Your task to perform on an android device: Open Youtube and go to "Your channel" Image 0: 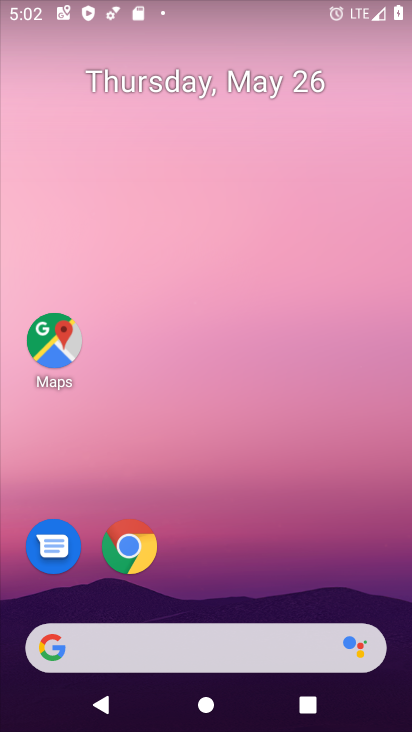
Step 0: drag from (211, 509) to (255, 111)
Your task to perform on an android device: Open Youtube and go to "Your channel" Image 1: 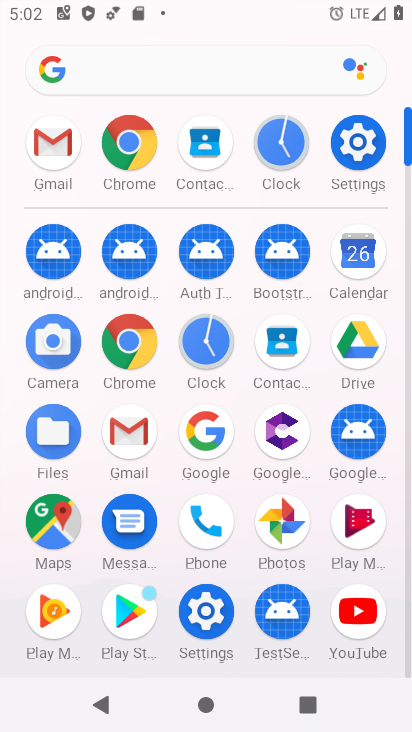
Step 1: click (350, 610)
Your task to perform on an android device: Open Youtube and go to "Your channel" Image 2: 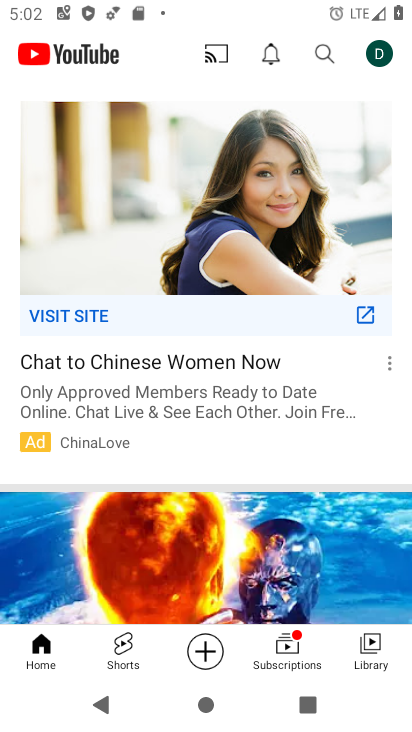
Step 2: drag from (380, 57) to (318, 57)
Your task to perform on an android device: Open Youtube and go to "Your channel" Image 3: 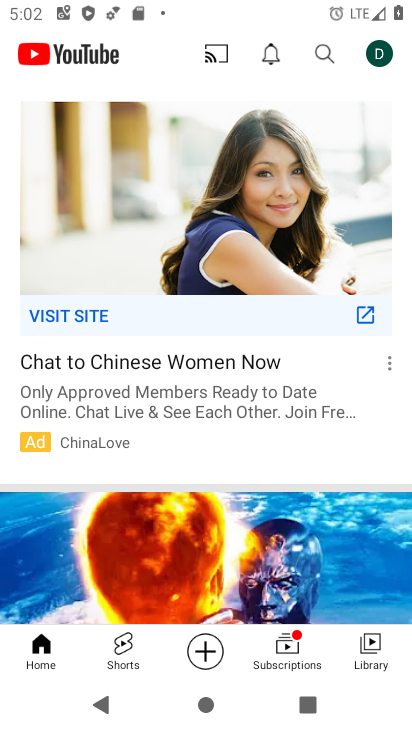
Step 3: click (386, 48)
Your task to perform on an android device: Open Youtube and go to "Your channel" Image 4: 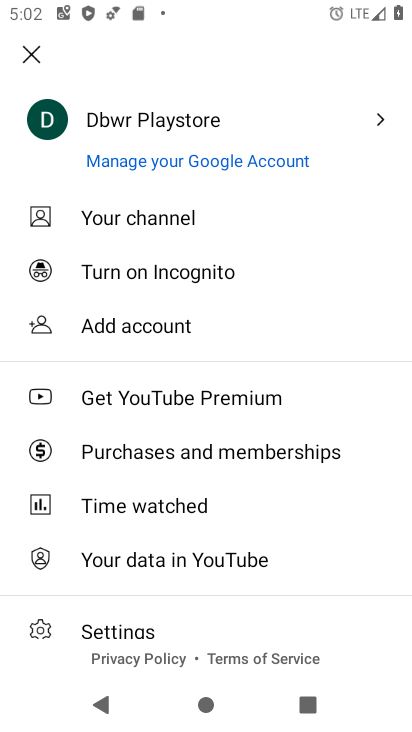
Step 4: click (159, 217)
Your task to perform on an android device: Open Youtube and go to "Your channel" Image 5: 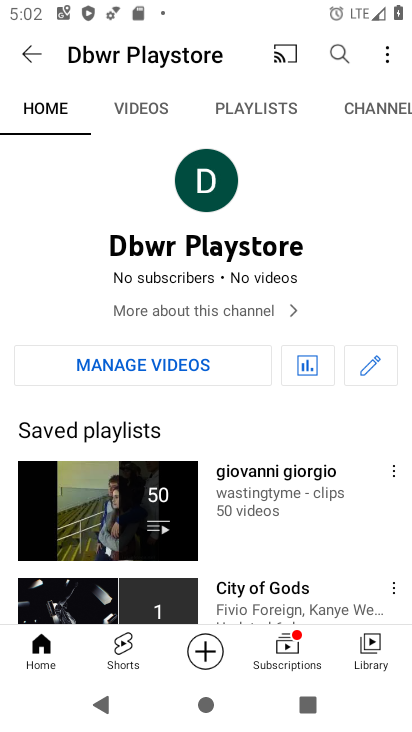
Step 5: task complete